Your task to perform on an android device: check the backup settings in the google photos Image 0: 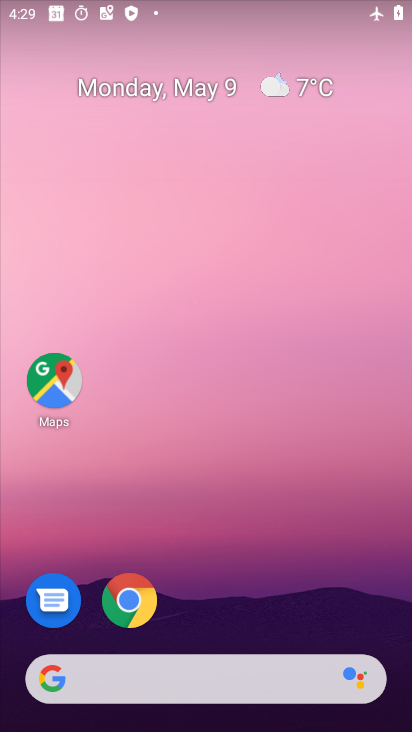
Step 0: drag from (297, 453) to (282, 117)
Your task to perform on an android device: check the backup settings in the google photos Image 1: 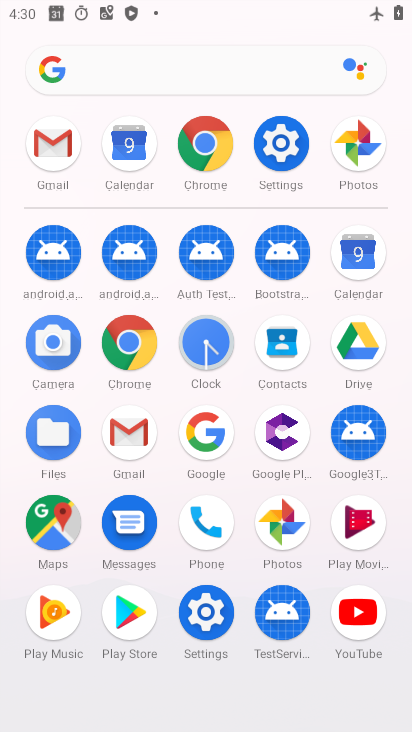
Step 1: click (283, 526)
Your task to perform on an android device: check the backup settings in the google photos Image 2: 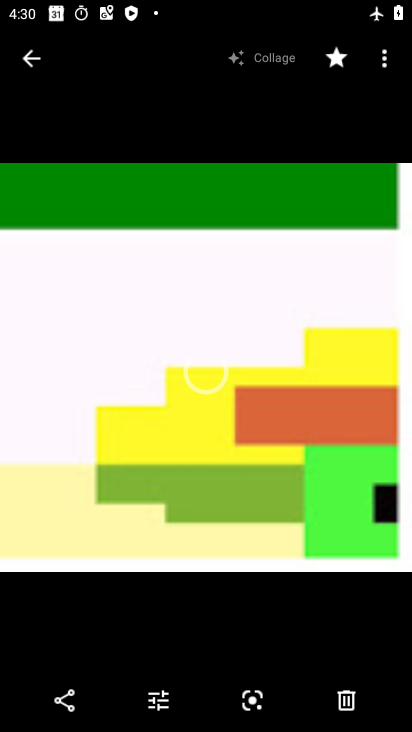
Step 2: click (36, 67)
Your task to perform on an android device: check the backup settings in the google photos Image 3: 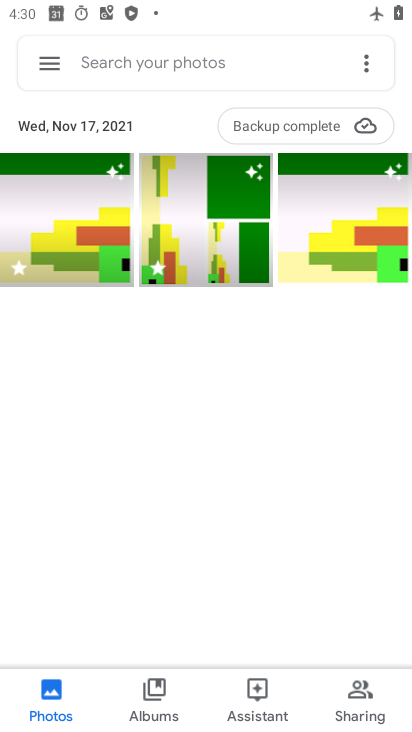
Step 3: click (37, 66)
Your task to perform on an android device: check the backup settings in the google photos Image 4: 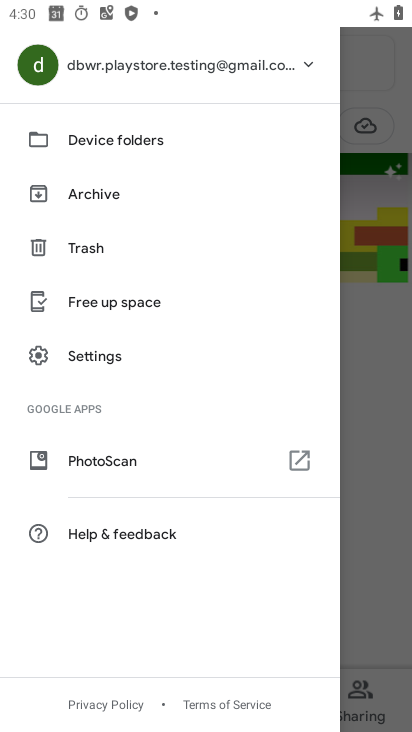
Step 4: click (116, 350)
Your task to perform on an android device: check the backup settings in the google photos Image 5: 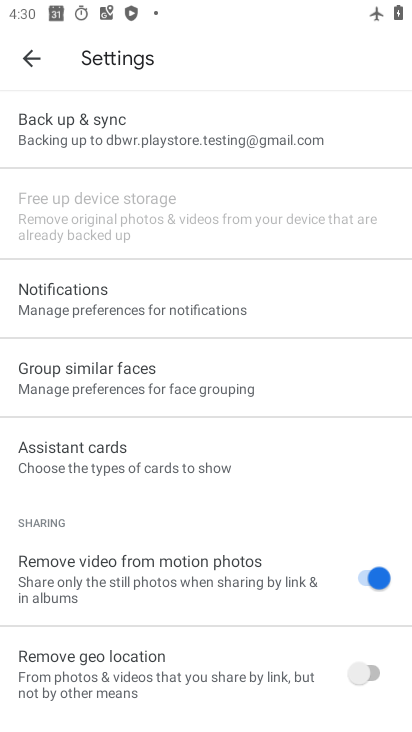
Step 5: click (159, 118)
Your task to perform on an android device: check the backup settings in the google photos Image 6: 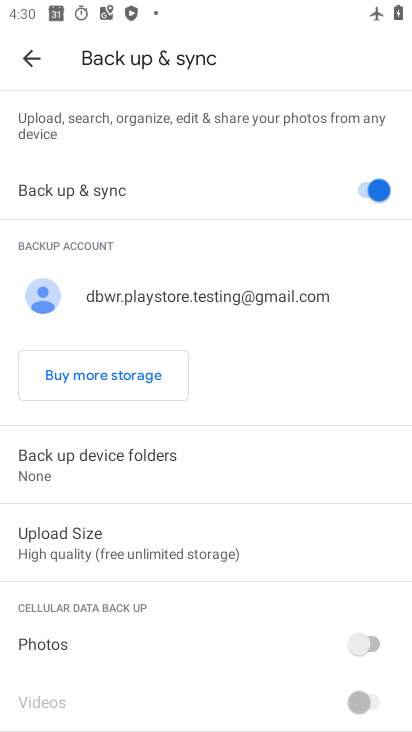
Step 6: task complete